Your task to perform on an android device: Open the phone app and click the voicemail tab. Image 0: 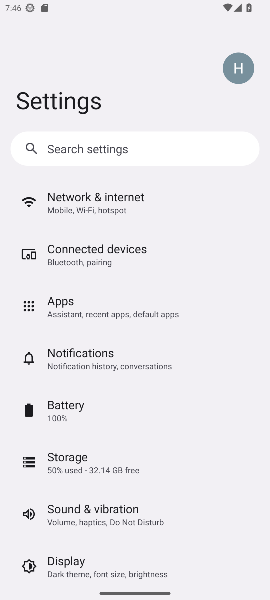
Step 0: press home button
Your task to perform on an android device: Open the phone app and click the voicemail tab. Image 1: 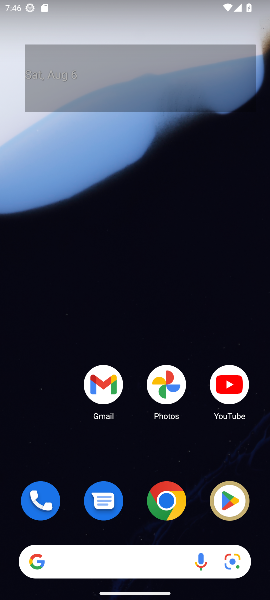
Step 1: drag from (5, 565) to (206, 208)
Your task to perform on an android device: Open the phone app and click the voicemail tab. Image 2: 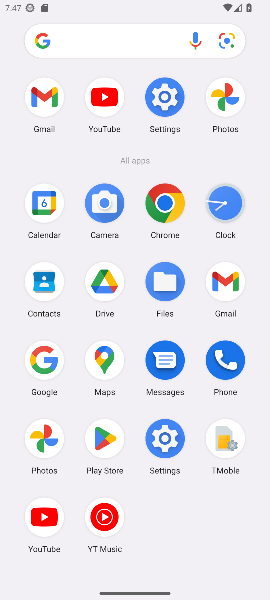
Step 2: click (226, 360)
Your task to perform on an android device: Open the phone app and click the voicemail tab. Image 3: 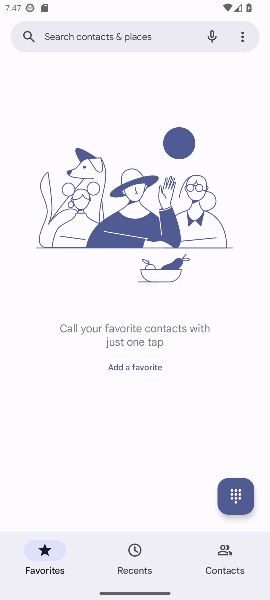
Step 3: task complete